Your task to perform on an android device: Show me recent news Image 0: 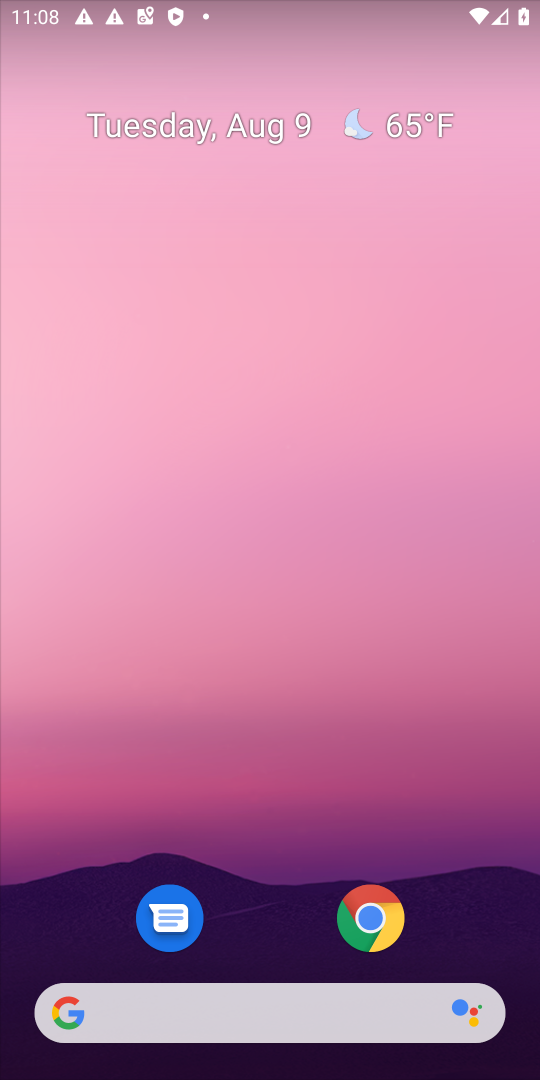
Step 0: drag from (341, 239) to (367, 4)
Your task to perform on an android device: Show me recent news Image 1: 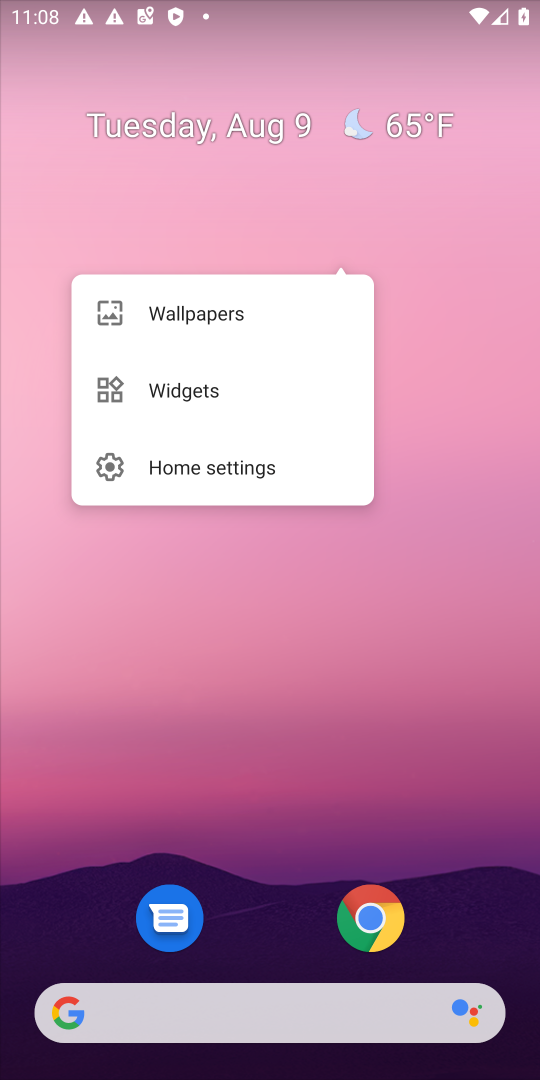
Step 1: click (379, 655)
Your task to perform on an android device: Show me recent news Image 2: 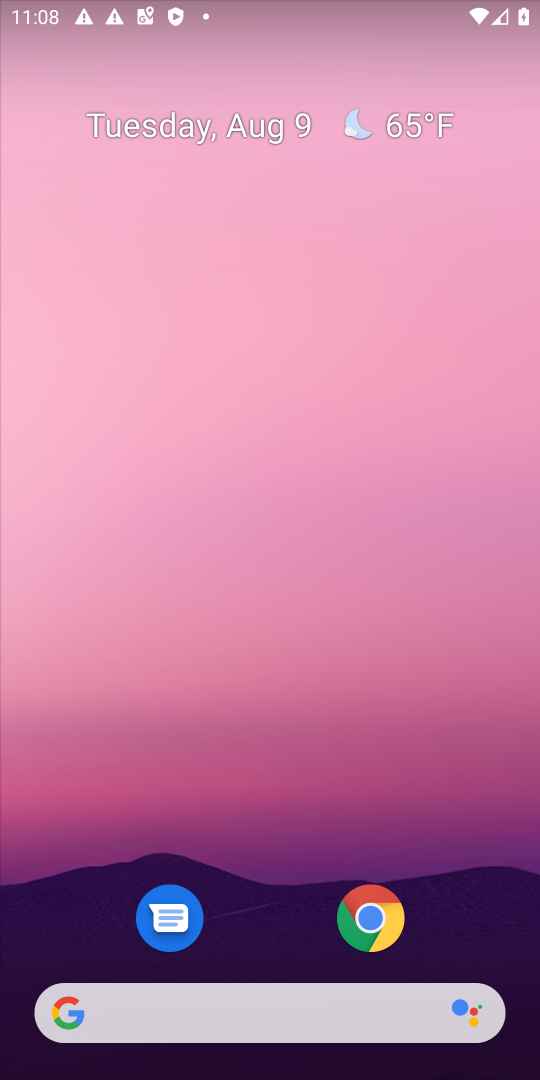
Step 2: drag from (399, 500) to (437, 0)
Your task to perform on an android device: Show me recent news Image 3: 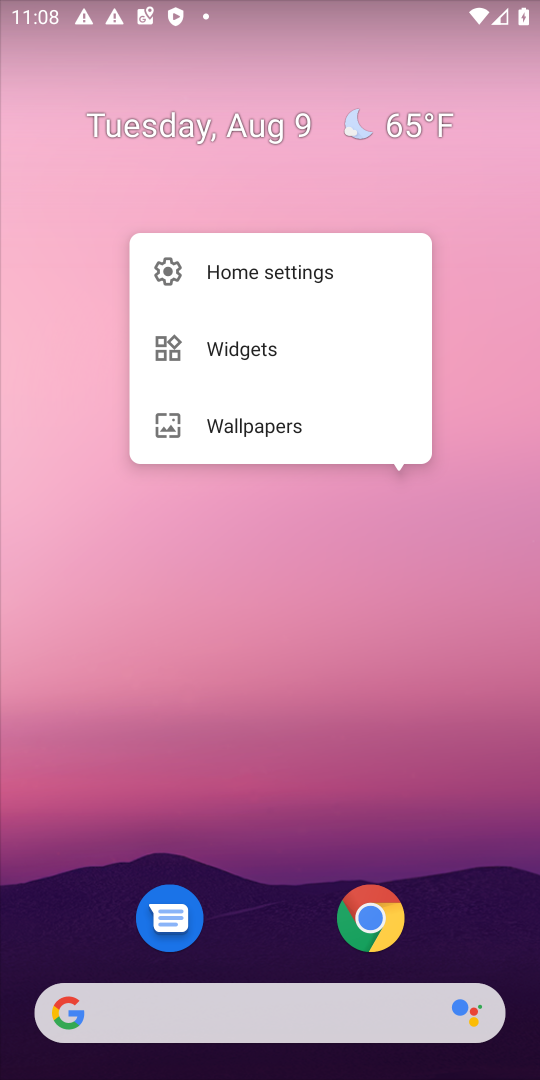
Step 3: click (391, 673)
Your task to perform on an android device: Show me recent news Image 4: 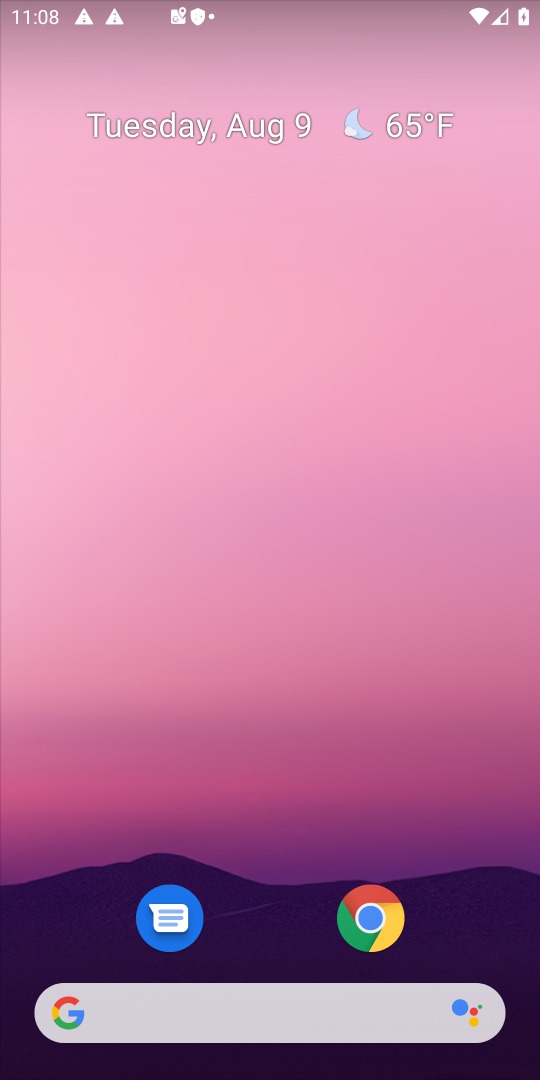
Step 4: drag from (448, 64) to (451, 6)
Your task to perform on an android device: Show me recent news Image 5: 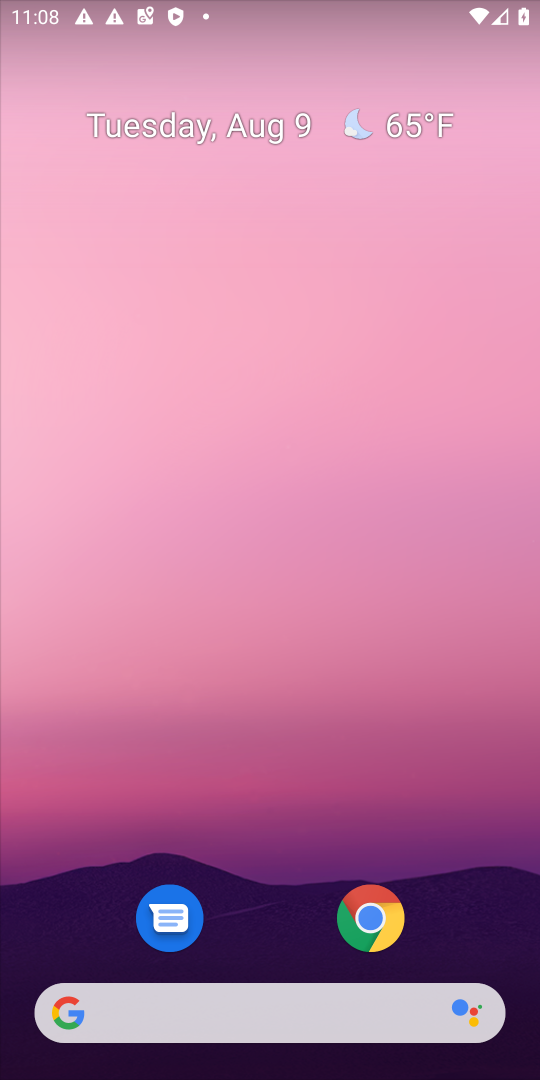
Step 5: drag from (283, 794) to (424, 6)
Your task to perform on an android device: Show me recent news Image 6: 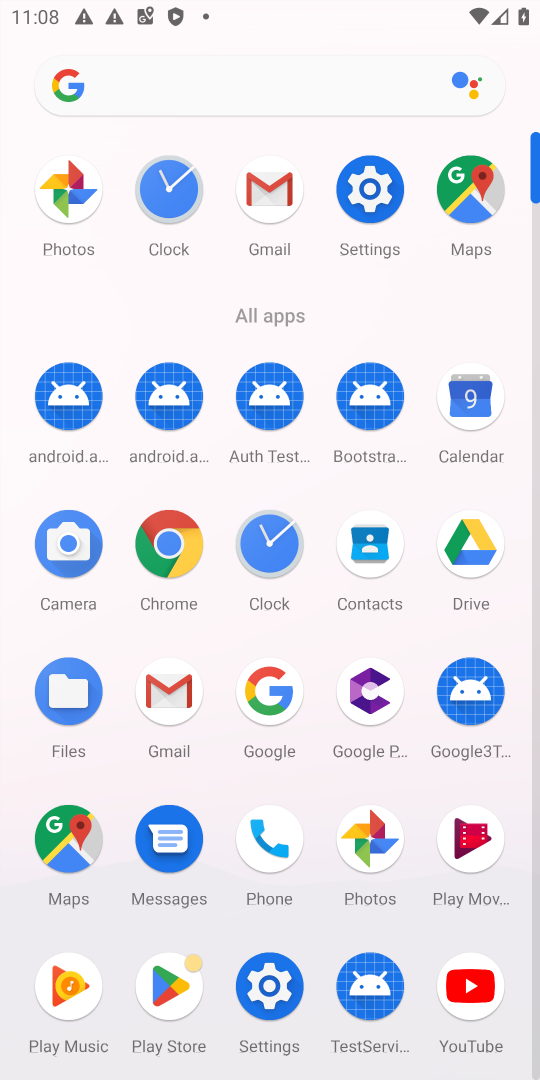
Step 6: click (171, 552)
Your task to perform on an android device: Show me recent news Image 7: 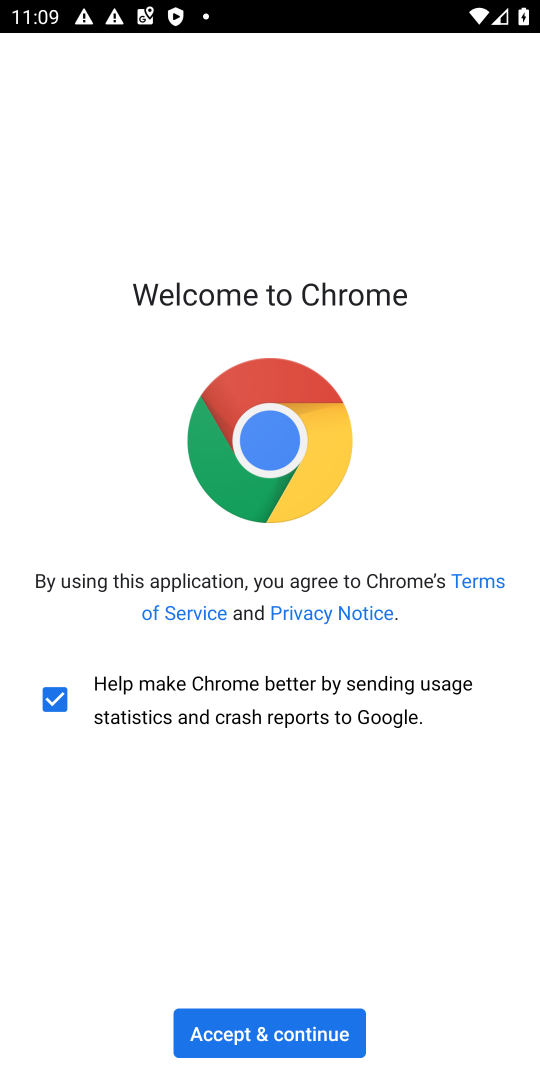
Step 7: click (324, 1025)
Your task to perform on an android device: Show me recent news Image 8: 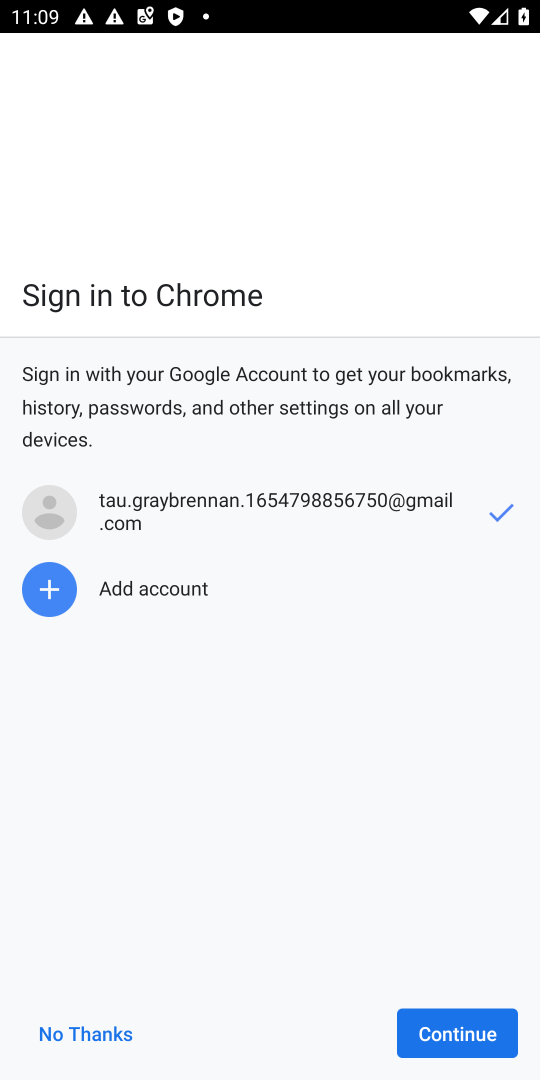
Step 8: click (470, 1049)
Your task to perform on an android device: Show me recent news Image 9: 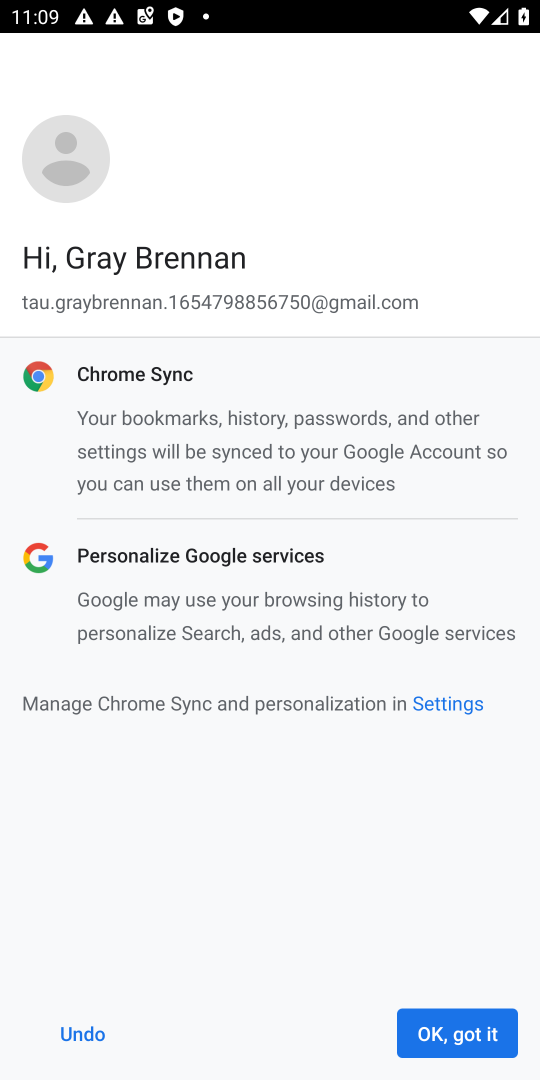
Step 9: click (490, 1026)
Your task to perform on an android device: Show me recent news Image 10: 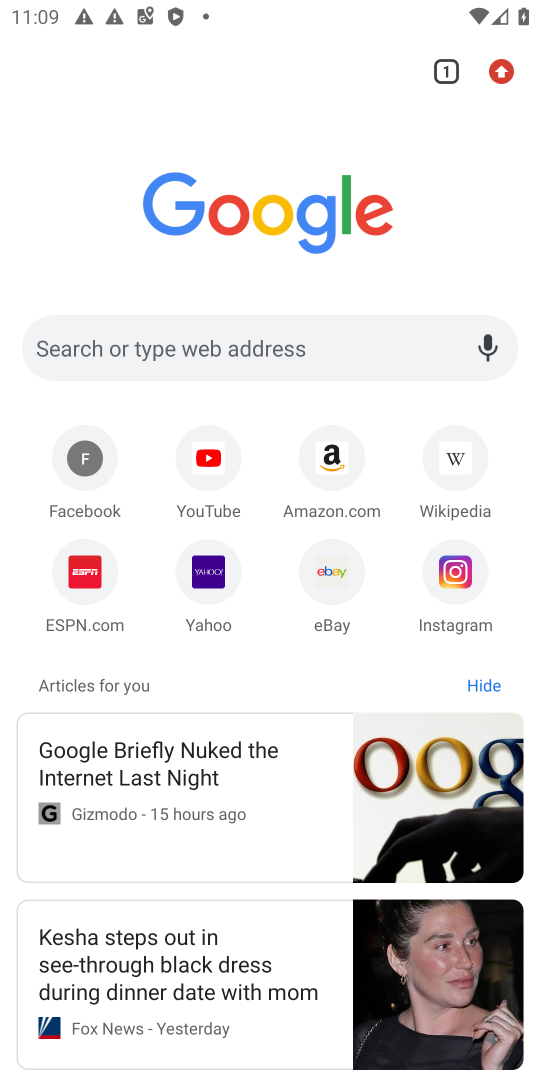
Step 10: click (315, 346)
Your task to perform on an android device: Show me recent news Image 11: 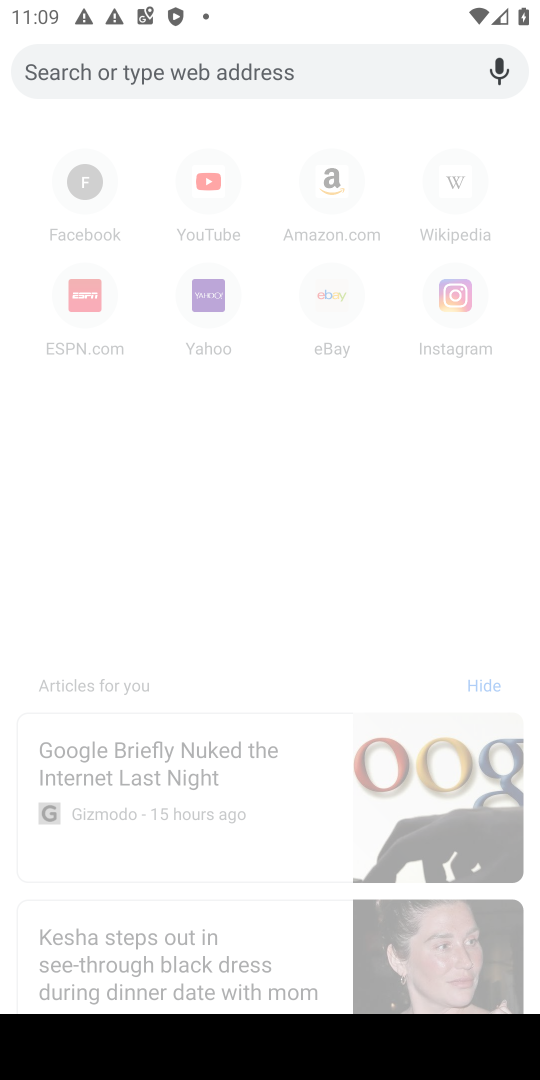
Step 11: type "news"
Your task to perform on an android device: Show me recent news Image 12: 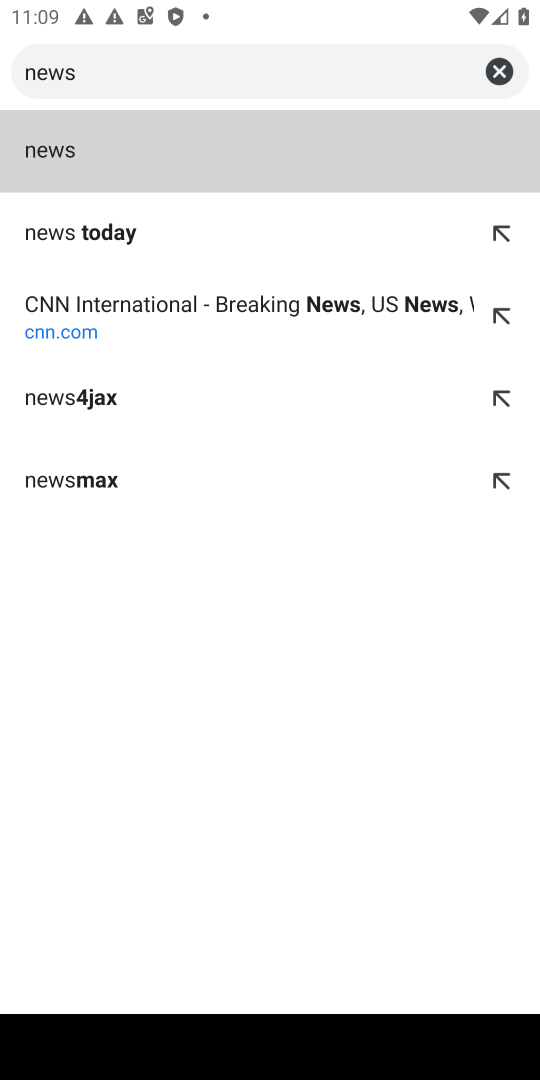
Step 12: click (54, 132)
Your task to perform on an android device: Show me recent news Image 13: 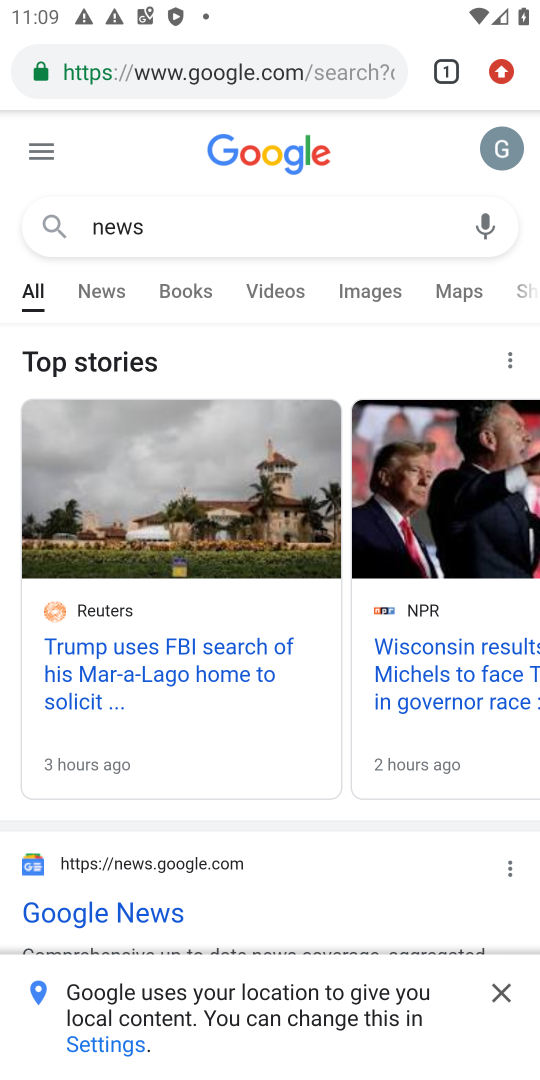
Step 13: click (154, 919)
Your task to perform on an android device: Show me recent news Image 14: 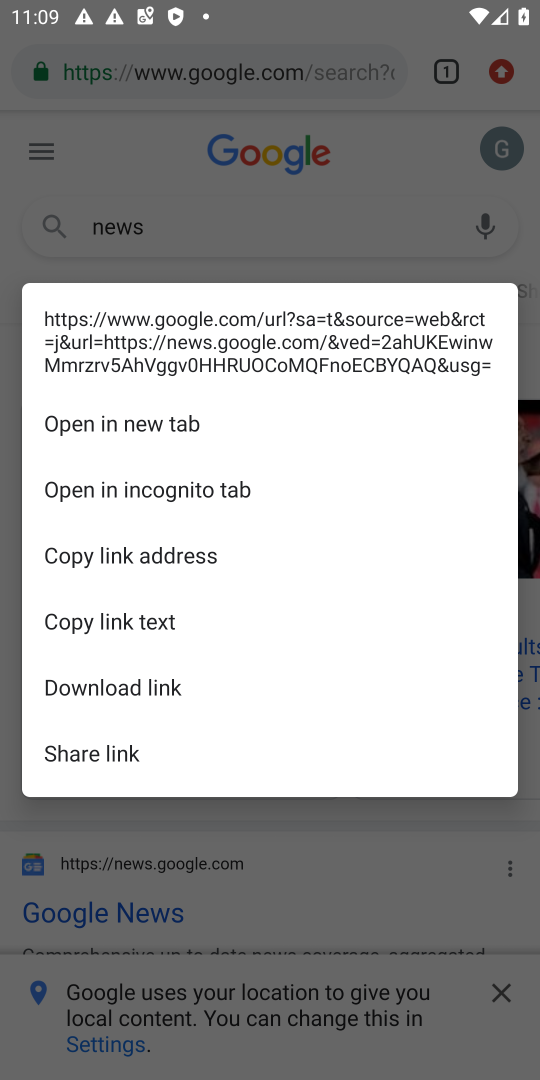
Step 14: click (357, 922)
Your task to perform on an android device: Show me recent news Image 15: 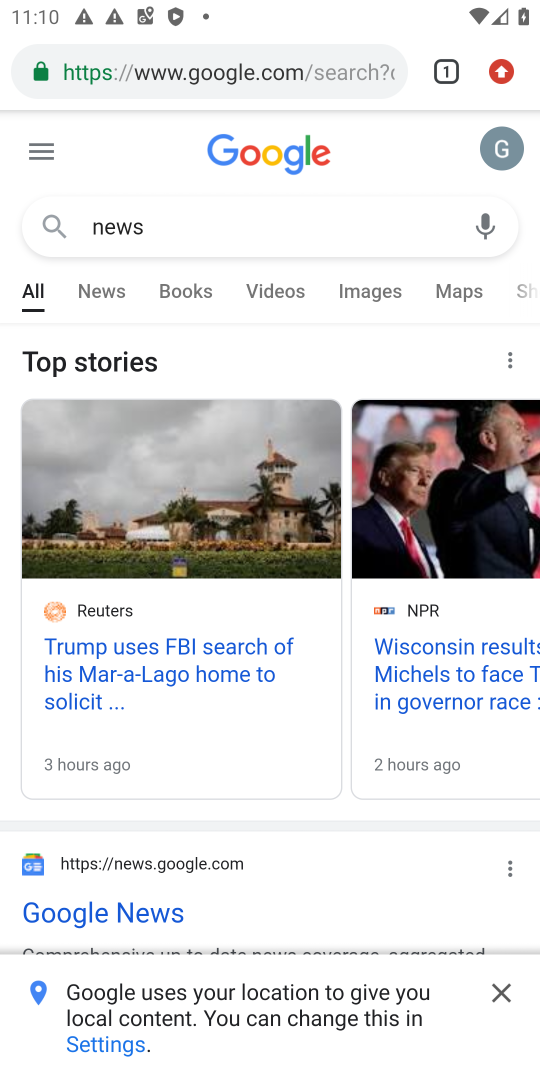
Step 15: click (167, 916)
Your task to perform on an android device: Show me recent news Image 16: 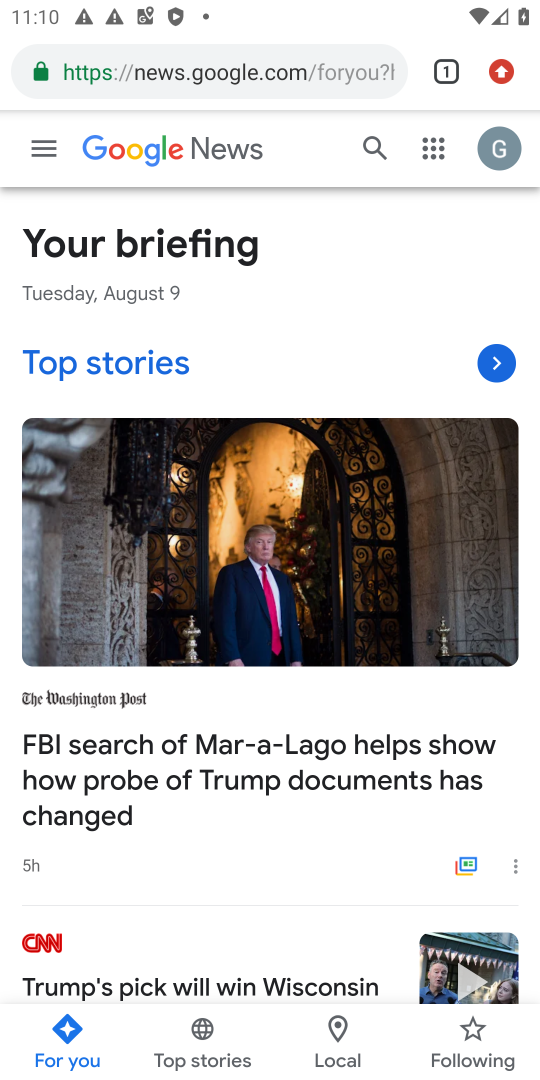
Step 16: task complete